Your task to perform on an android device: check the backup settings in the google photos Image 0: 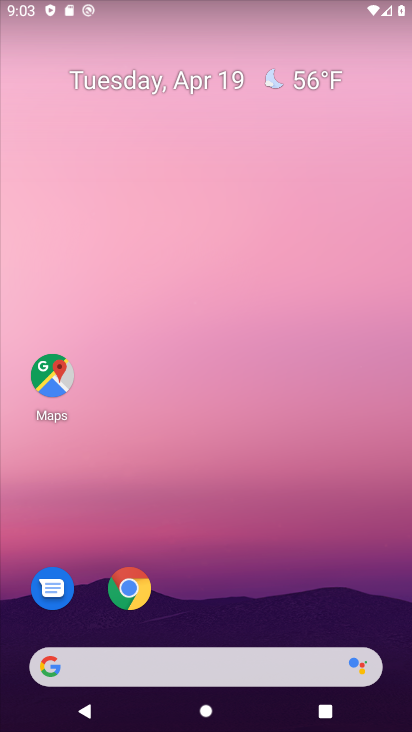
Step 0: drag from (206, 618) to (331, 18)
Your task to perform on an android device: check the backup settings in the google photos Image 1: 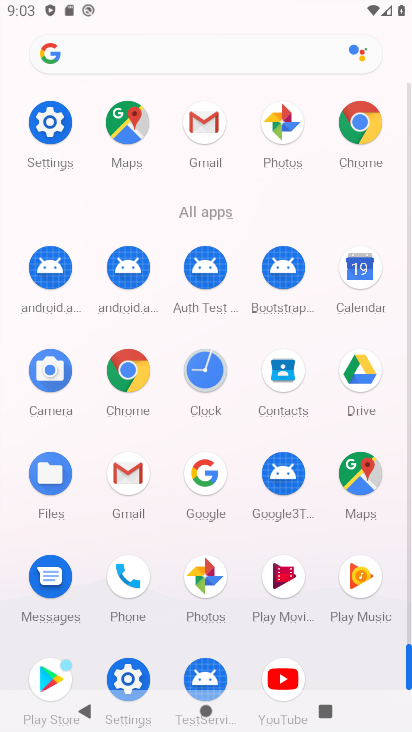
Step 1: click (284, 124)
Your task to perform on an android device: check the backup settings in the google photos Image 2: 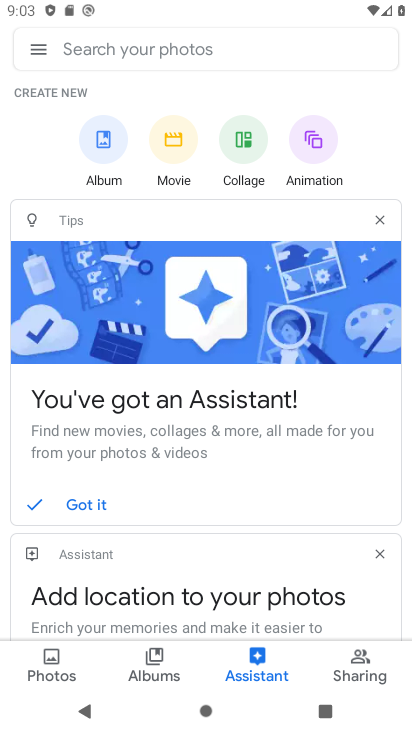
Step 2: click (38, 51)
Your task to perform on an android device: check the backup settings in the google photos Image 3: 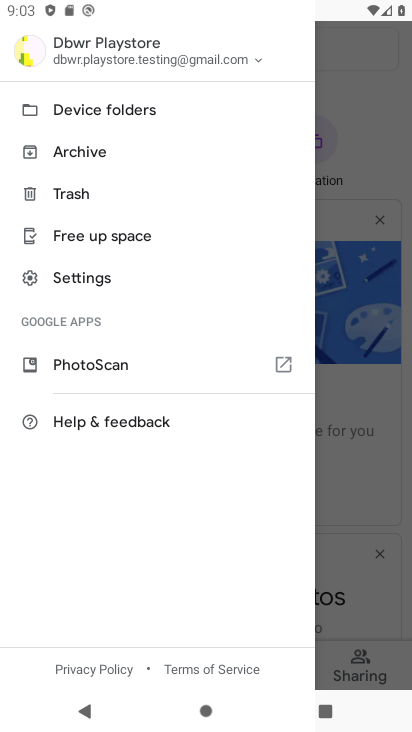
Step 3: click (81, 280)
Your task to perform on an android device: check the backup settings in the google photos Image 4: 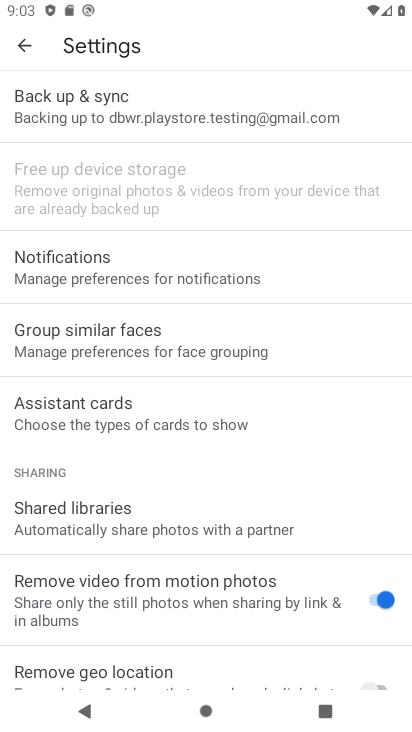
Step 4: click (190, 116)
Your task to perform on an android device: check the backup settings in the google photos Image 5: 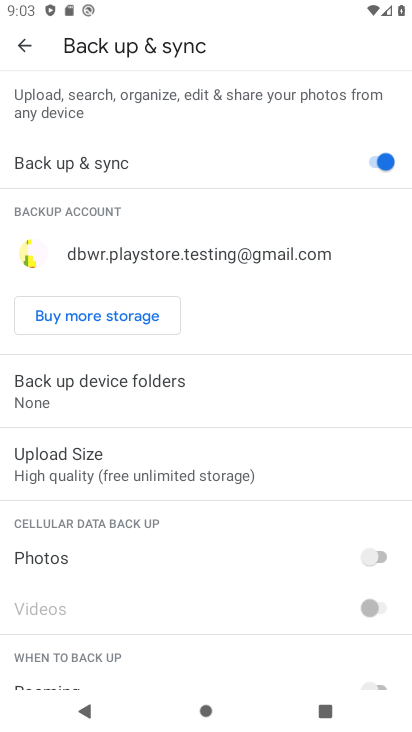
Step 5: task complete